Your task to perform on an android device: toggle sleep mode Image 0: 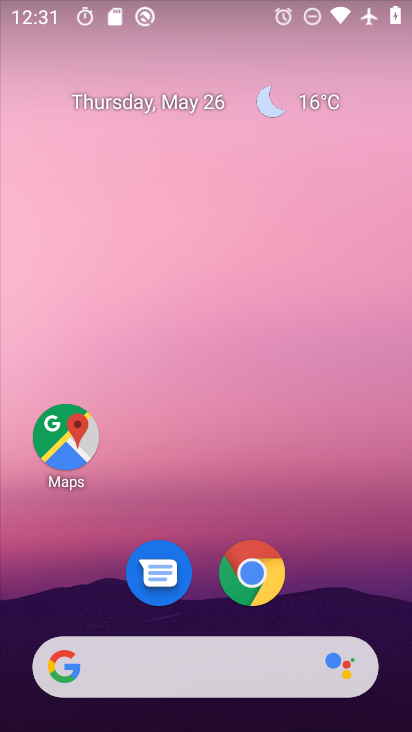
Step 0: drag from (361, 593) to (377, 11)
Your task to perform on an android device: toggle sleep mode Image 1: 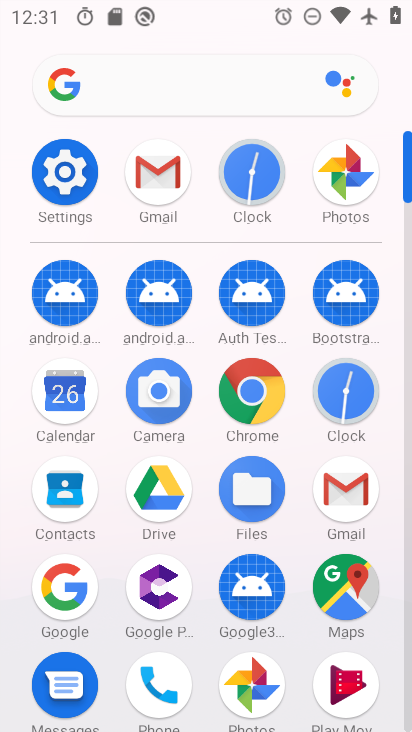
Step 1: click (65, 167)
Your task to perform on an android device: toggle sleep mode Image 2: 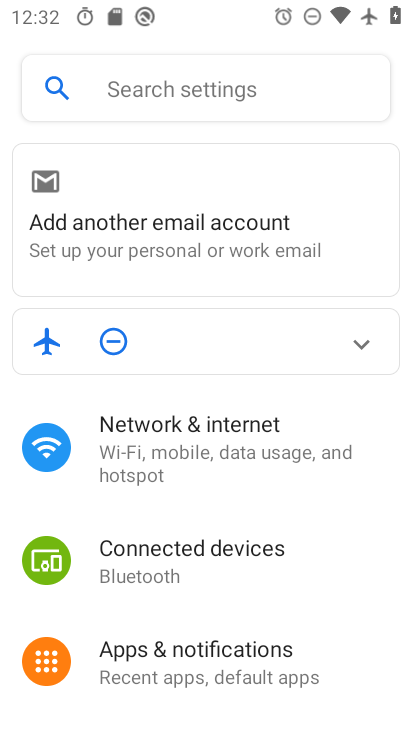
Step 2: drag from (289, 538) to (272, 161)
Your task to perform on an android device: toggle sleep mode Image 3: 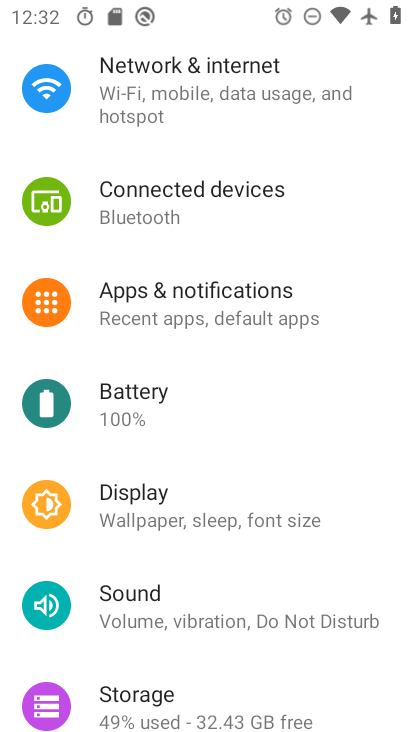
Step 3: click (155, 507)
Your task to perform on an android device: toggle sleep mode Image 4: 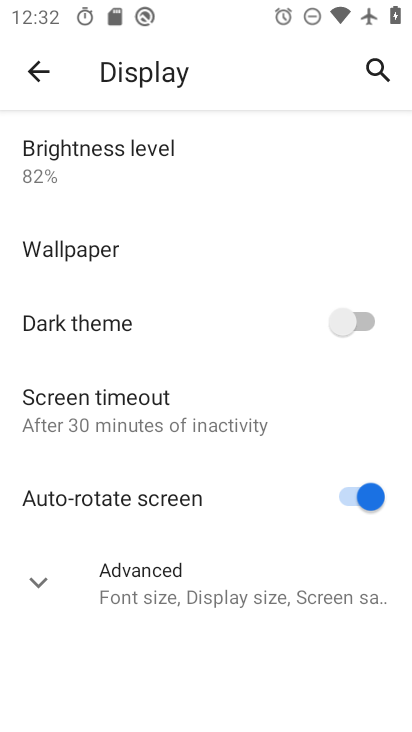
Step 4: click (36, 589)
Your task to perform on an android device: toggle sleep mode Image 5: 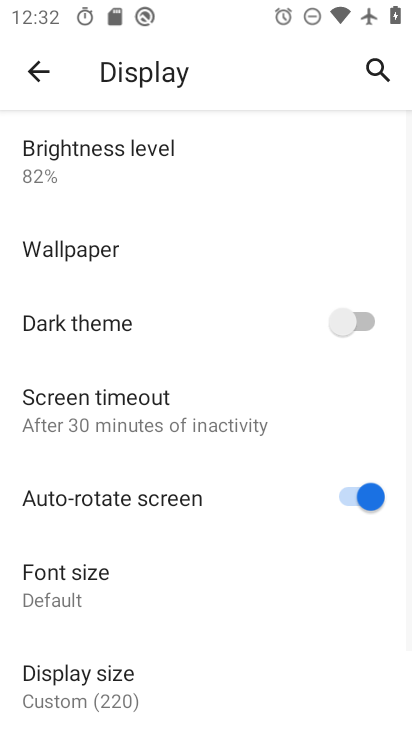
Step 5: task complete